Your task to perform on an android device: What is the news today? Image 0: 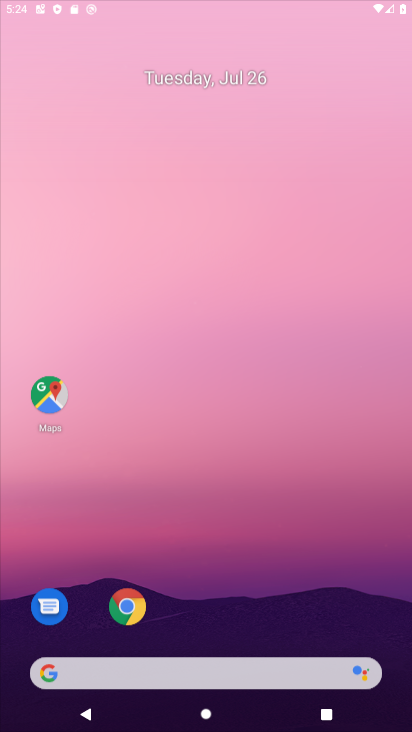
Step 0: press home button
Your task to perform on an android device: What is the news today? Image 1: 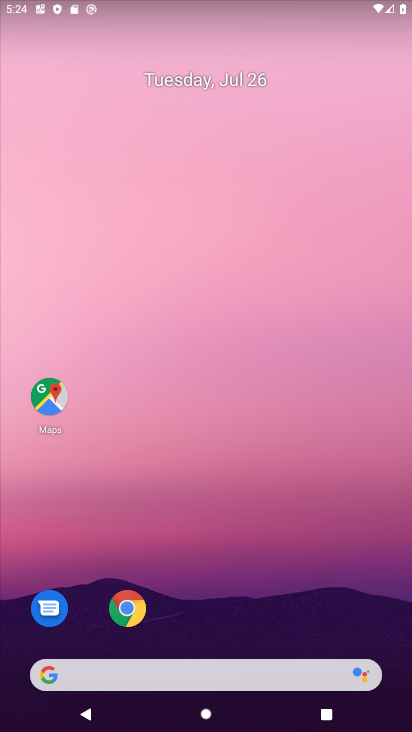
Step 1: click (54, 684)
Your task to perform on an android device: What is the news today? Image 2: 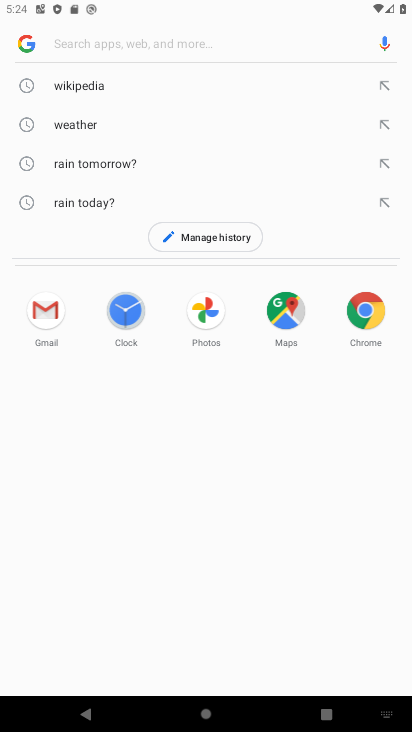
Step 2: type "news today?"
Your task to perform on an android device: What is the news today? Image 3: 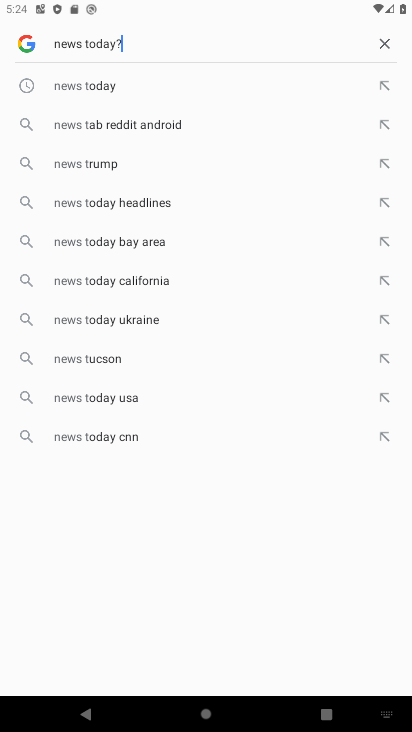
Step 3: press enter
Your task to perform on an android device: What is the news today? Image 4: 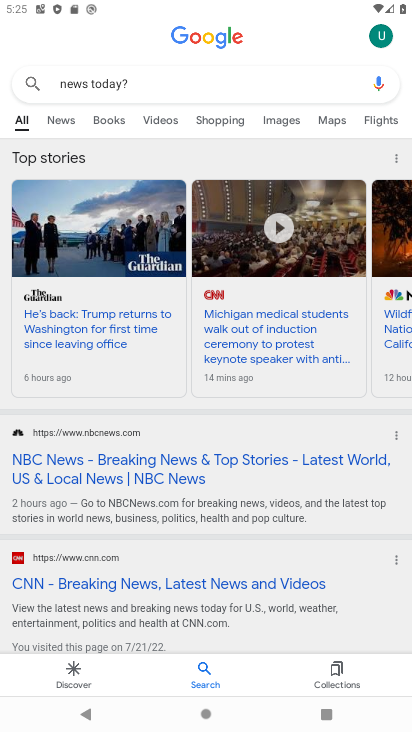
Step 4: task complete